Your task to perform on an android device: change alarm snooze length Image 0: 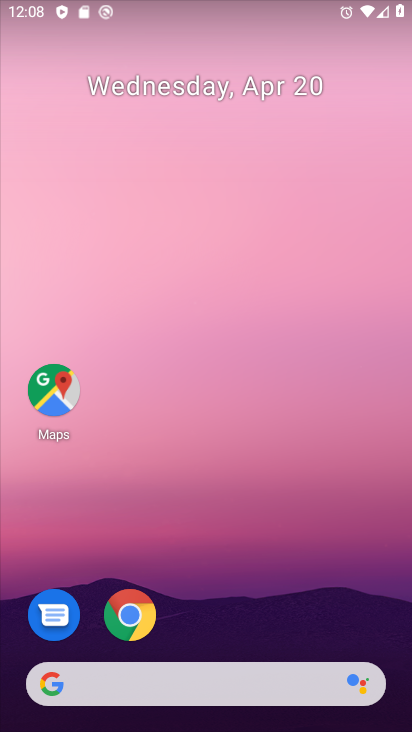
Step 0: drag from (372, 293) to (372, 155)
Your task to perform on an android device: change alarm snooze length Image 1: 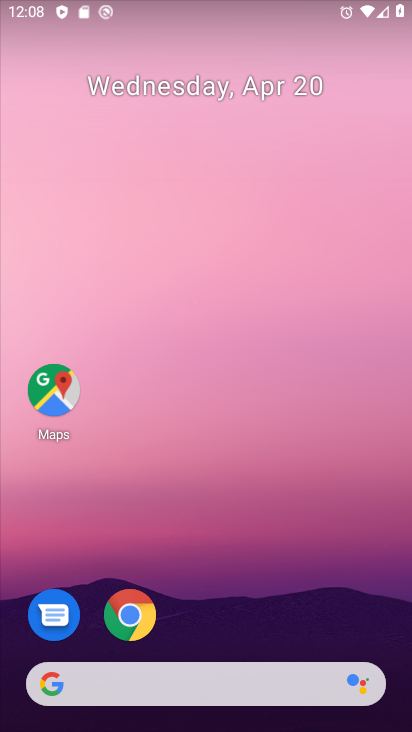
Step 1: drag from (384, 627) to (389, 197)
Your task to perform on an android device: change alarm snooze length Image 2: 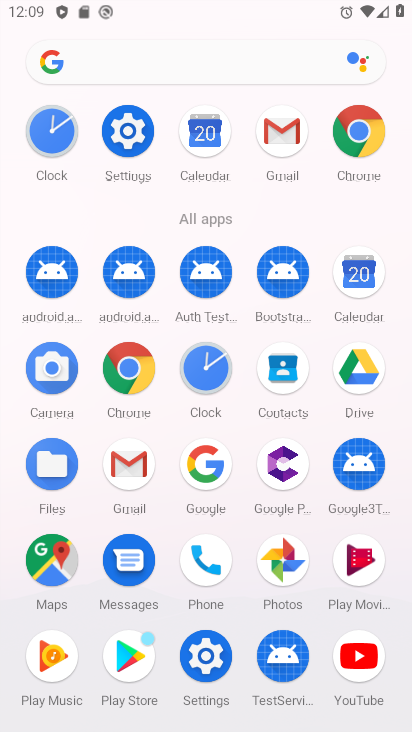
Step 2: click (120, 140)
Your task to perform on an android device: change alarm snooze length Image 3: 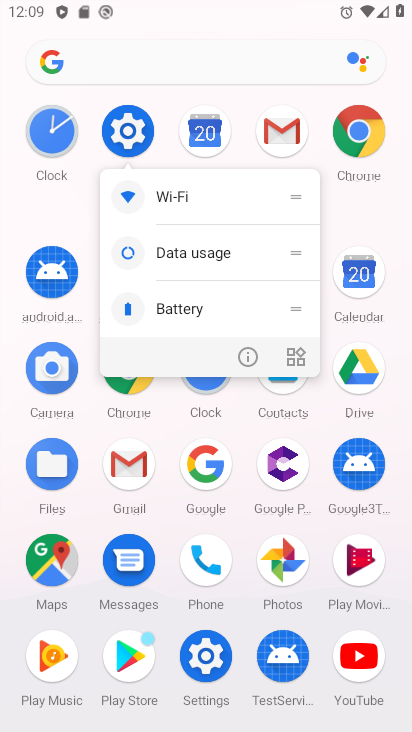
Step 3: press back button
Your task to perform on an android device: change alarm snooze length Image 4: 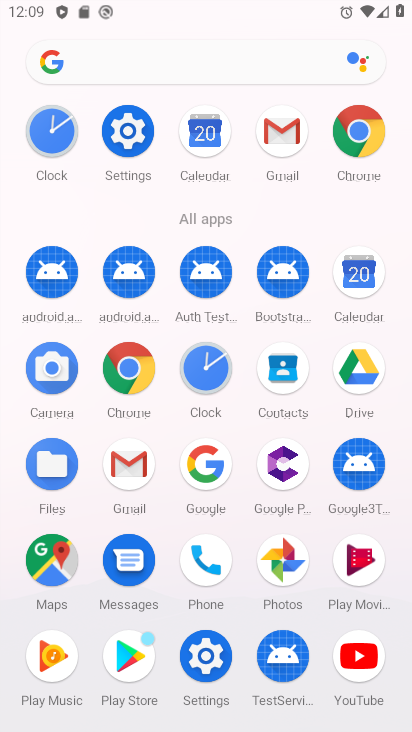
Step 4: click (207, 373)
Your task to perform on an android device: change alarm snooze length Image 5: 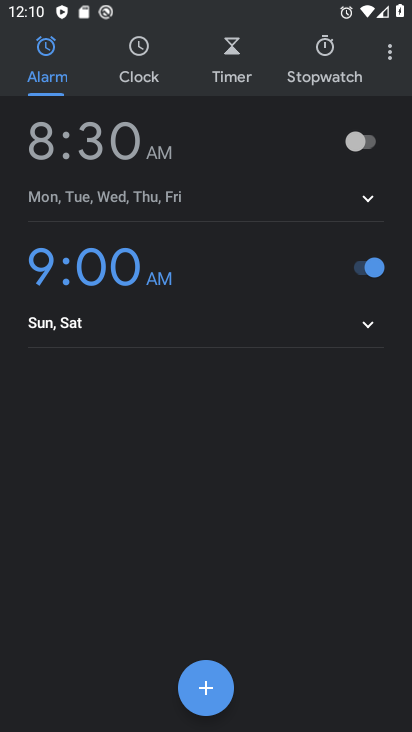
Step 5: click (385, 50)
Your task to perform on an android device: change alarm snooze length Image 6: 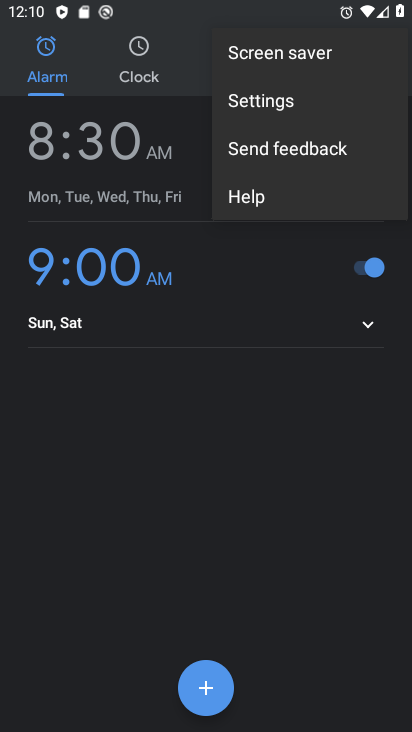
Step 6: click (278, 97)
Your task to perform on an android device: change alarm snooze length Image 7: 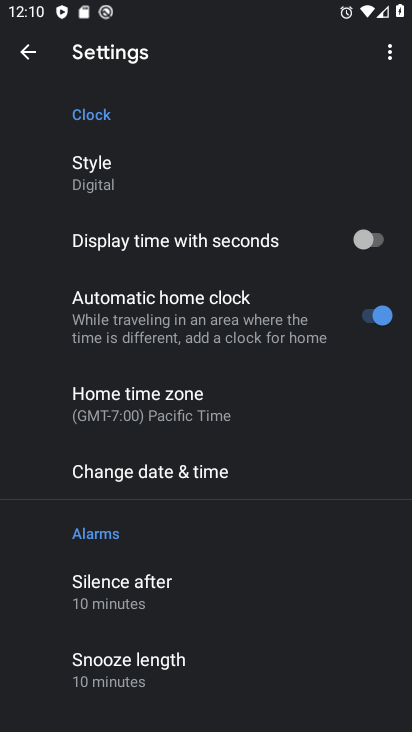
Step 7: drag from (299, 545) to (297, 362)
Your task to perform on an android device: change alarm snooze length Image 8: 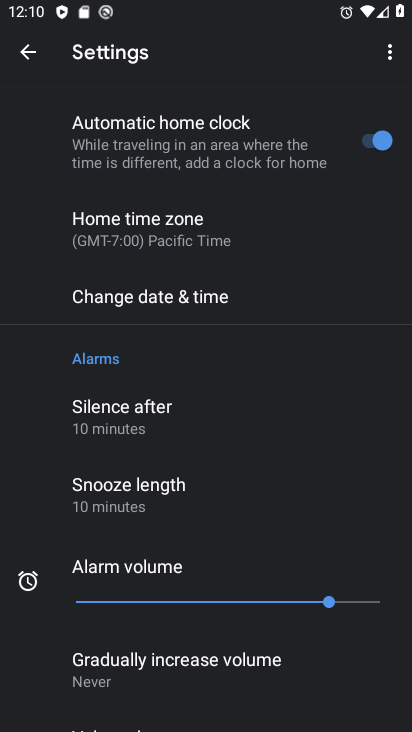
Step 8: drag from (262, 493) to (256, 328)
Your task to perform on an android device: change alarm snooze length Image 9: 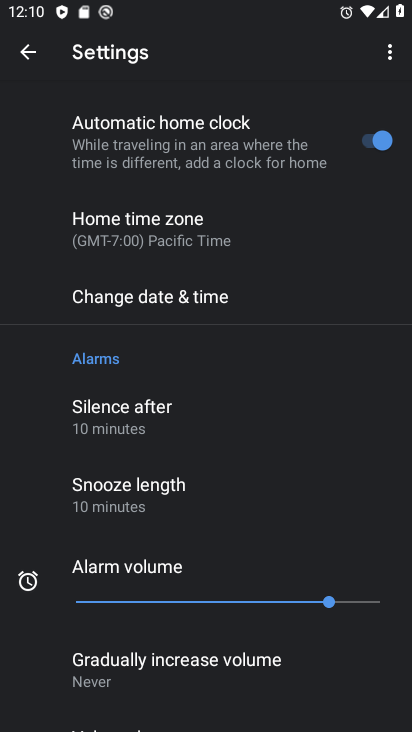
Step 9: click (121, 497)
Your task to perform on an android device: change alarm snooze length Image 10: 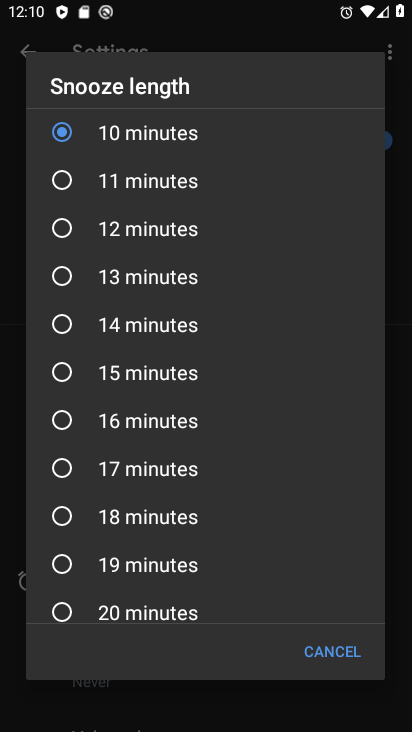
Step 10: click (63, 221)
Your task to perform on an android device: change alarm snooze length Image 11: 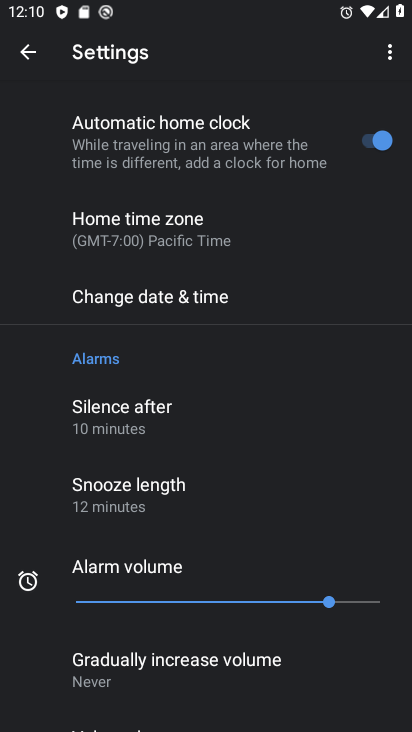
Step 11: task complete